Your task to perform on an android device: Go to internet settings Image 0: 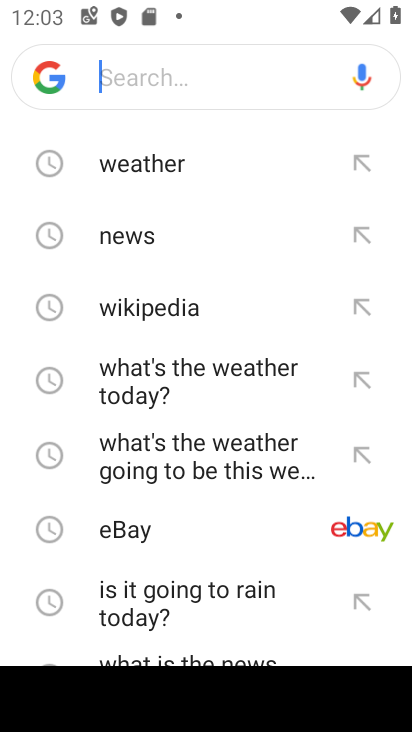
Step 0: press home button
Your task to perform on an android device: Go to internet settings Image 1: 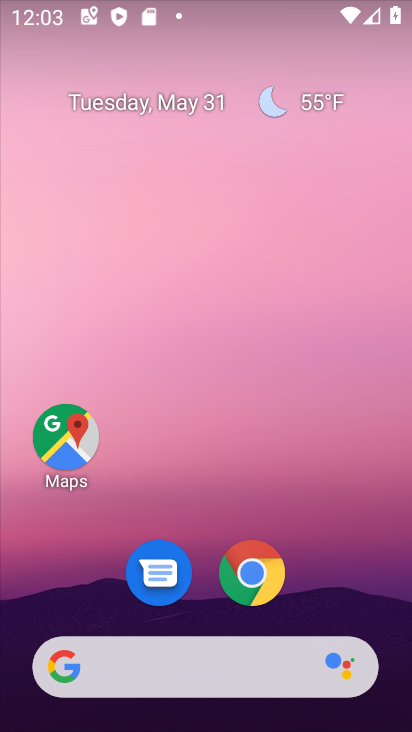
Step 1: drag from (328, 587) to (387, 0)
Your task to perform on an android device: Go to internet settings Image 2: 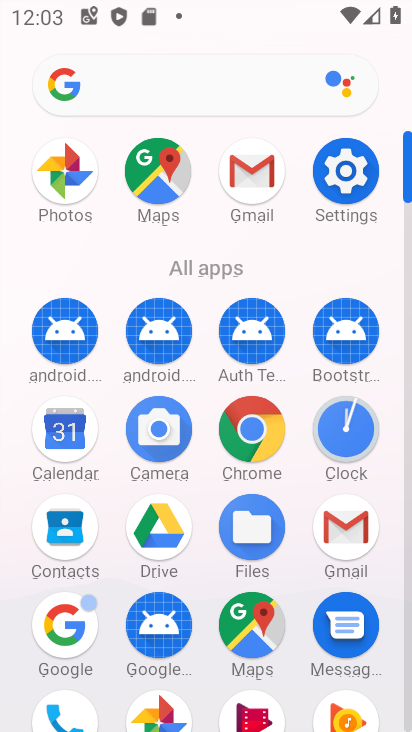
Step 2: click (343, 171)
Your task to perform on an android device: Go to internet settings Image 3: 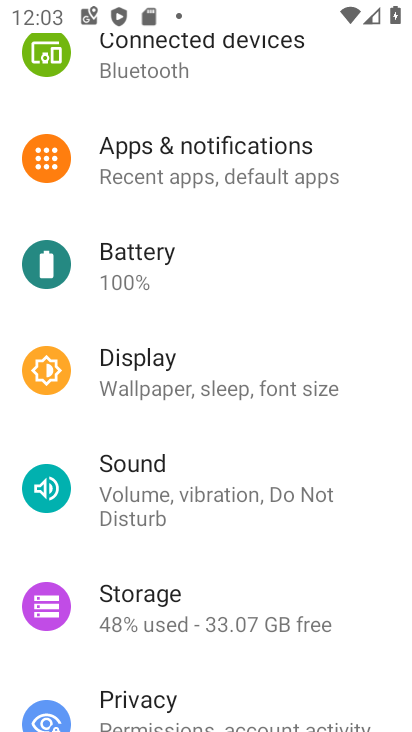
Step 3: drag from (240, 310) to (259, 651)
Your task to perform on an android device: Go to internet settings Image 4: 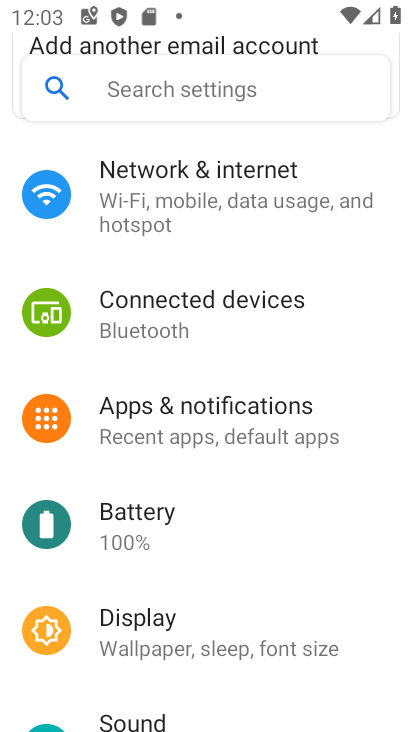
Step 4: drag from (229, 481) to (222, 681)
Your task to perform on an android device: Go to internet settings Image 5: 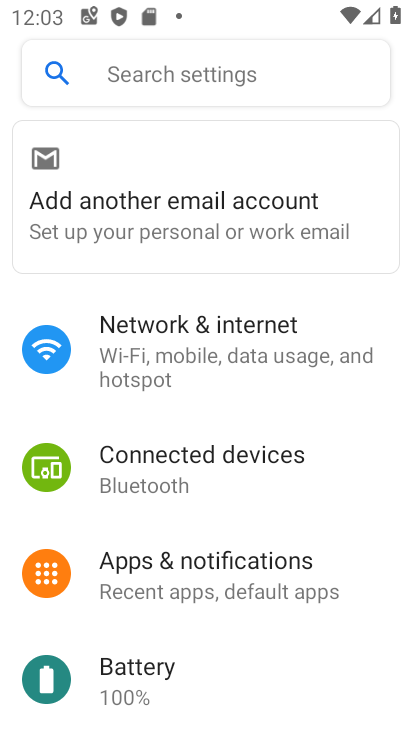
Step 5: click (178, 328)
Your task to perform on an android device: Go to internet settings Image 6: 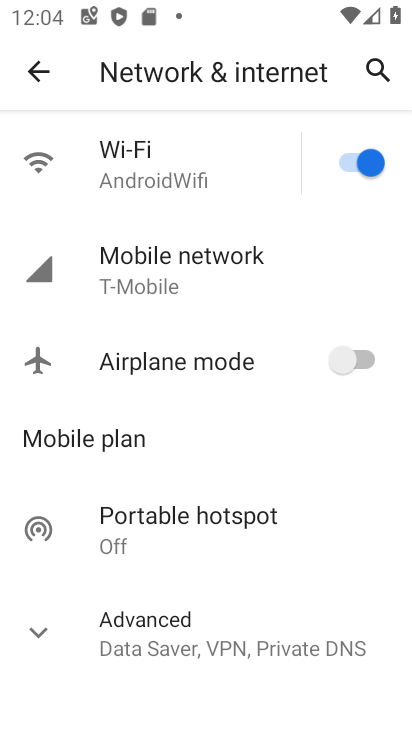
Step 6: click (100, 256)
Your task to perform on an android device: Go to internet settings Image 7: 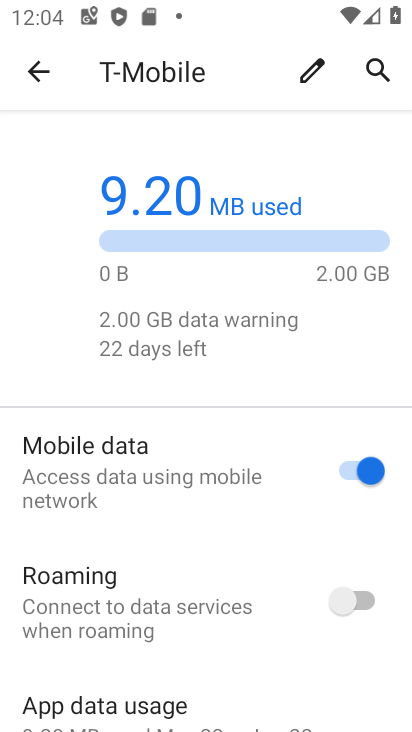
Step 7: task complete